Your task to perform on an android device: install app "DoorDash - Food Delivery" Image 0: 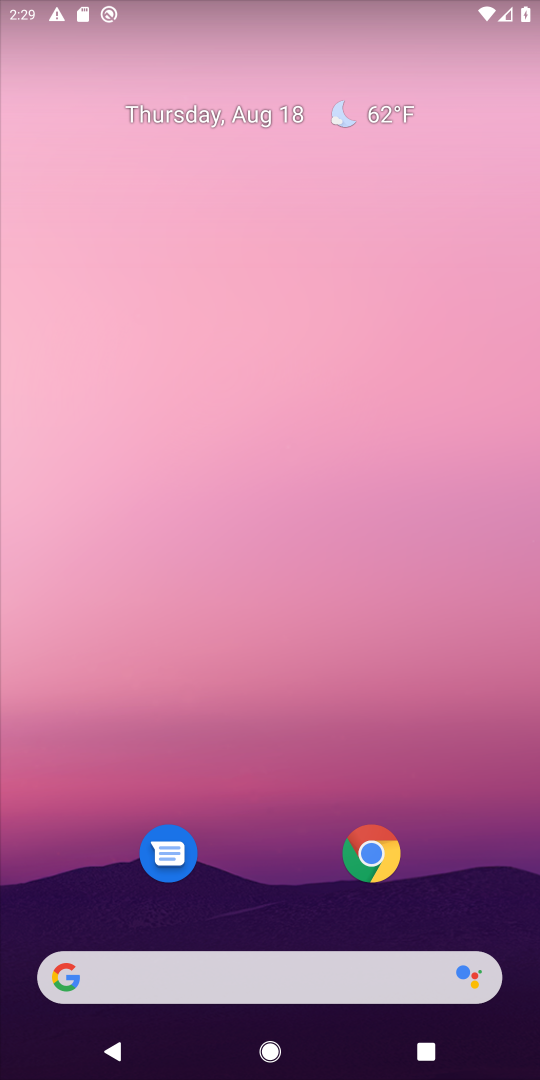
Step 0: drag from (489, 844) to (228, 0)
Your task to perform on an android device: install app "DoorDash - Food Delivery" Image 1: 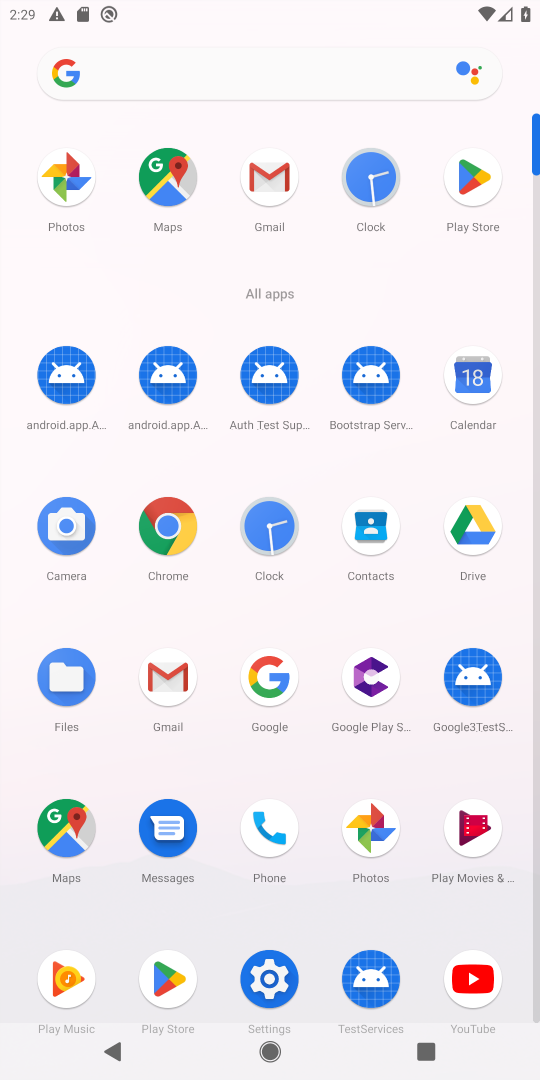
Step 1: click (468, 197)
Your task to perform on an android device: install app "DoorDash - Food Delivery" Image 2: 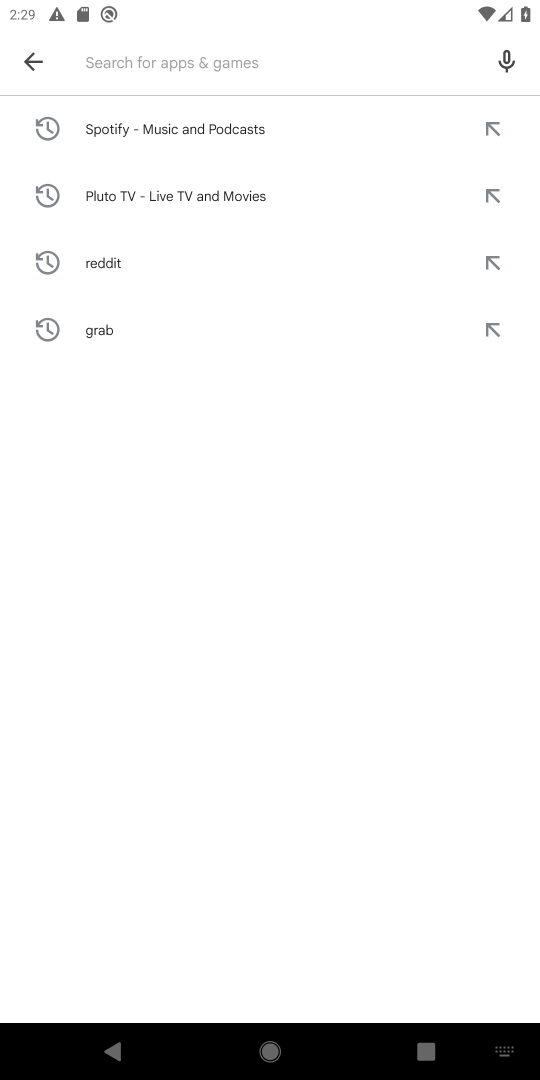
Step 2: type "DoorDash - Food Delivery"
Your task to perform on an android device: install app "DoorDash - Food Delivery" Image 3: 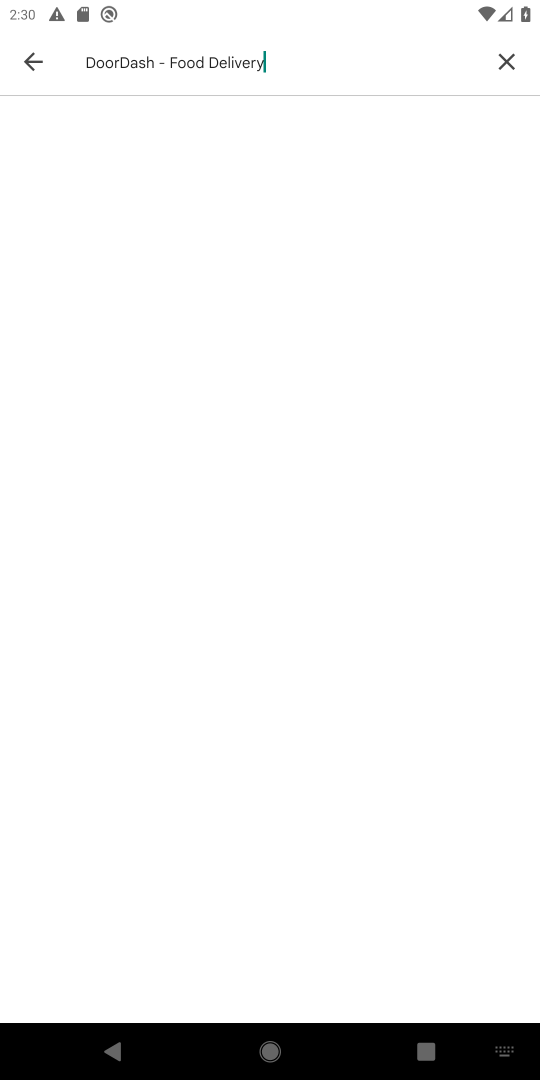
Step 3: task complete